Your task to perform on an android device: allow cookies in the chrome app Image 0: 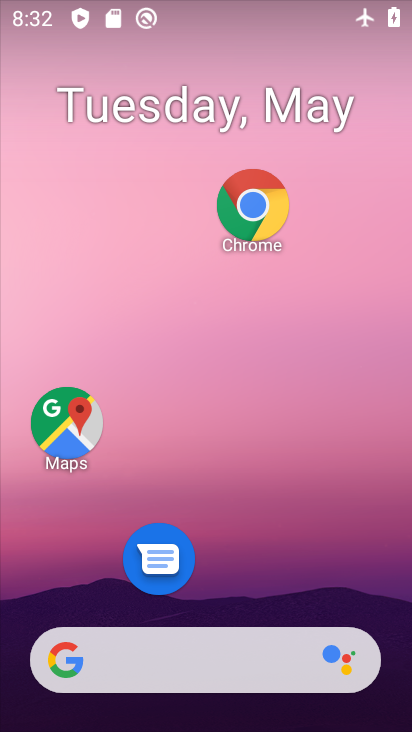
Step 0: click (245, 238)
Your task to perform on an android device: allow cookies in the chrome app Image 1: 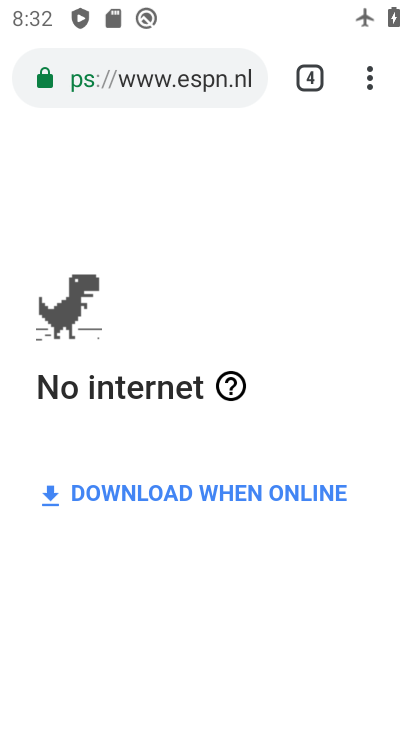
Step 1: drag from (366, 76) to (149, 614)
Your task to perform on an android device: allow cookies in the chrome app Image 2: 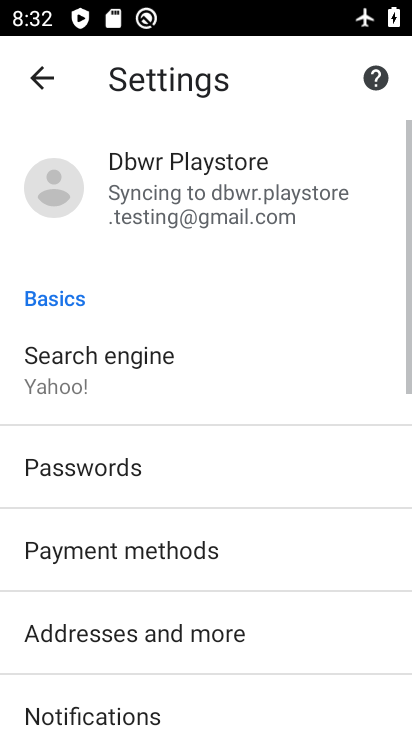
Step 2: drag from (277, 617) to (289, 345)
Your task to perform on an android device: allow cookies in the chrome app Image 3: 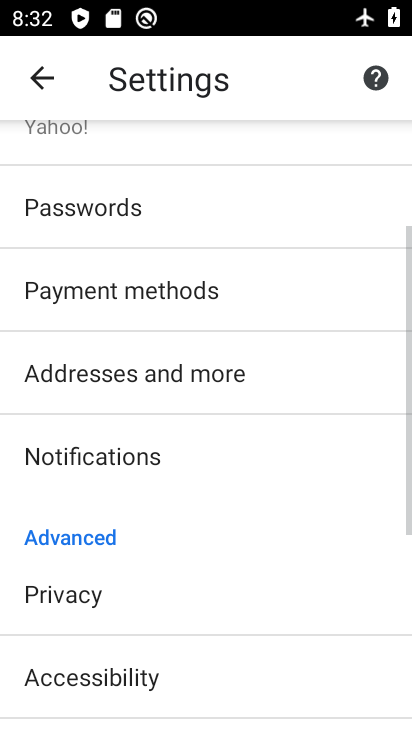
Step 3: drag from (199, 651) to (271, 370)
Your task to perform on an android device: allow cookies in the chrome app Image 4: 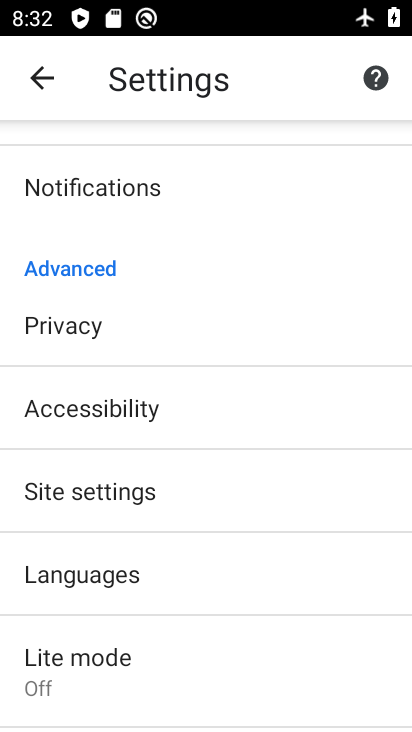
Step 4: click (147, 501)
Your task to perform on an android device: allow cookies in the chrome app Image 5: 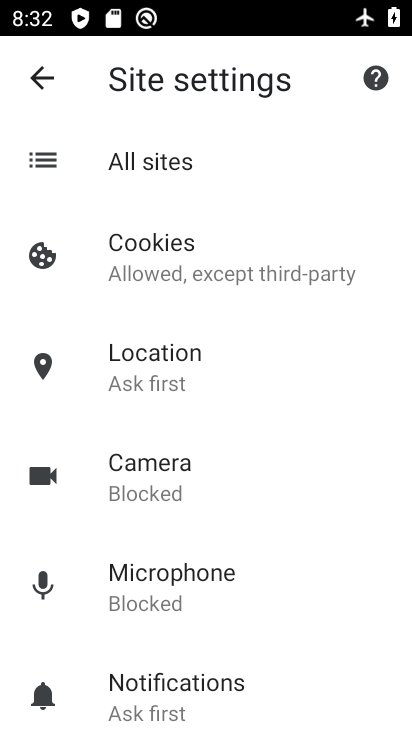
Step 5: click (239, 247)
Your task to perform on an android device: allow cookies in the chrome app Image 6: 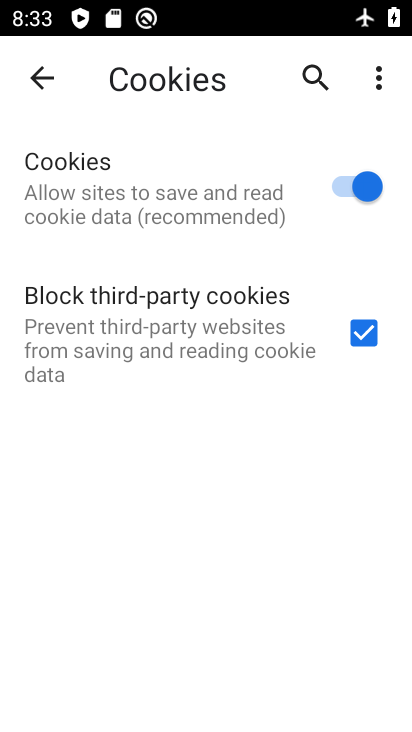
Step 6: task complete